Your task to perform on an android device: What's the weather? Image 0: 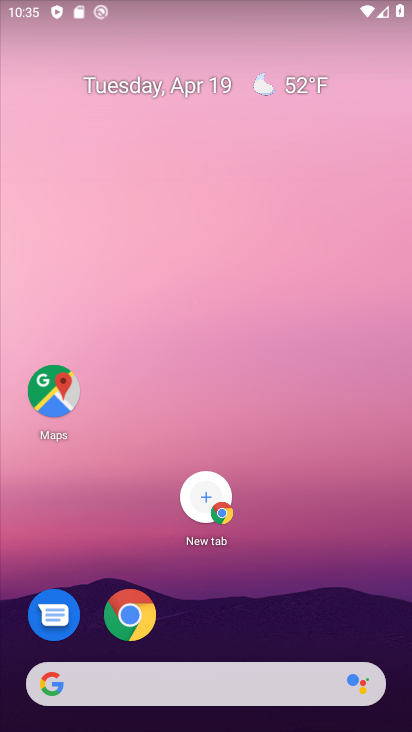
Step 0: click (316, 80)
Your task to perform on an android device: What's the weather? Image 1: 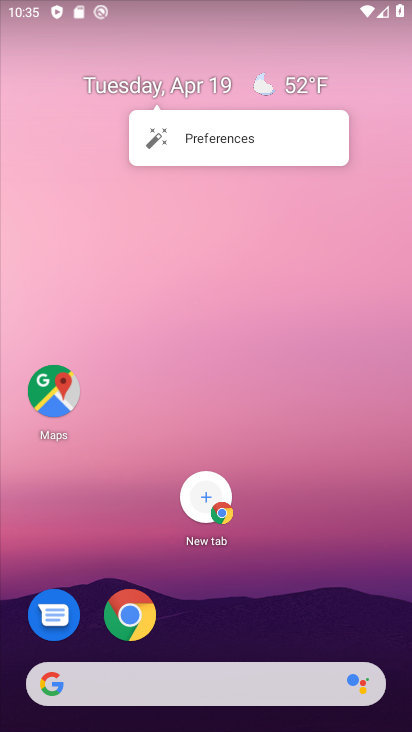
Step 1: click (292, 88)
Your task to perform on an android device: What's the weather? Image 2: 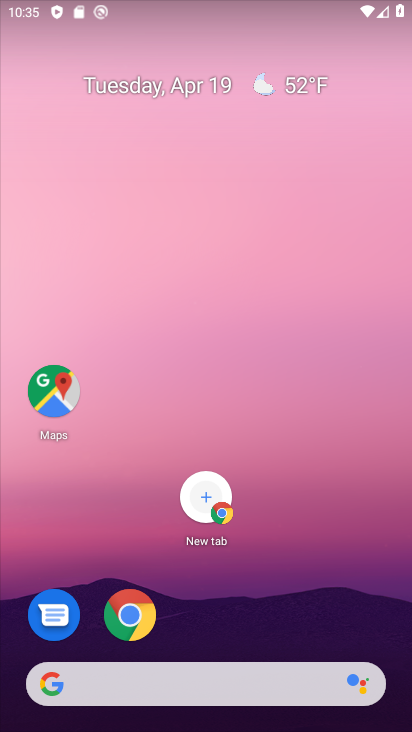
Step 2: click (292, 88)
Your task to perform on an android device: What's the weather? Image 3: 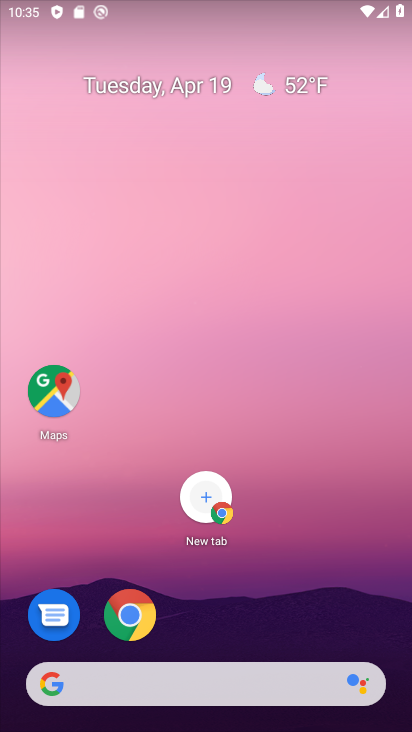
Step 3: click (308, 91)
Your task to perform on an android device: What's the weather? Image 4: 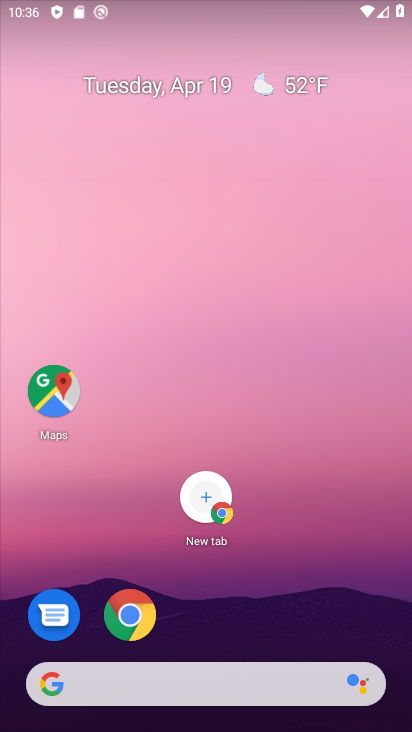
Step 4: click (304, 93)
Your task to perform on an android device: What's the weather? Image 5: 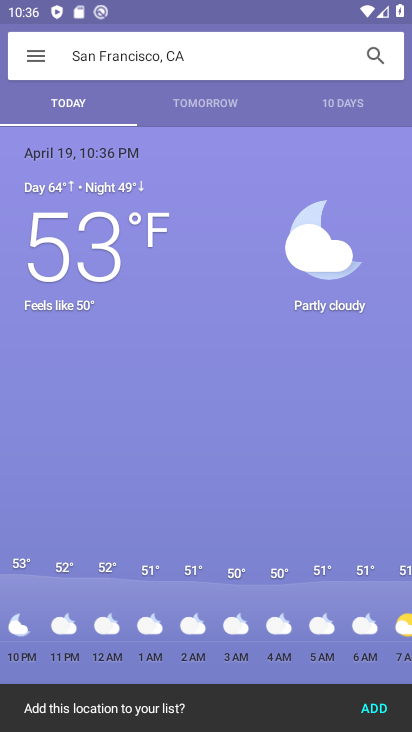
Step 5: task complete